Your task to perform on an android device: allow cookies in the chrome app Image 0: 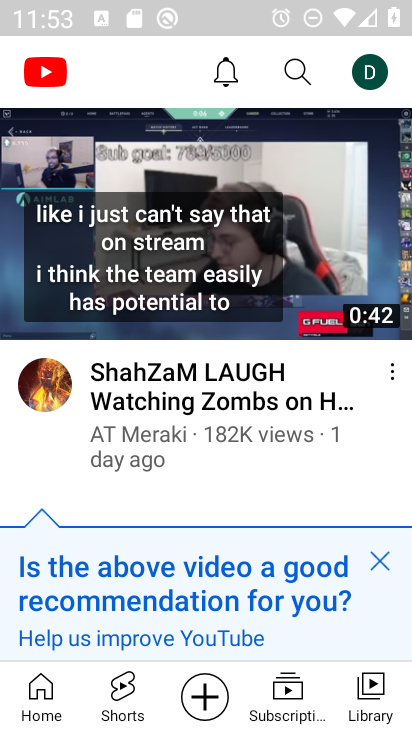
Step 0: press home button
Your task to perform on an android device: allow cookies in the chrome app Image 1: 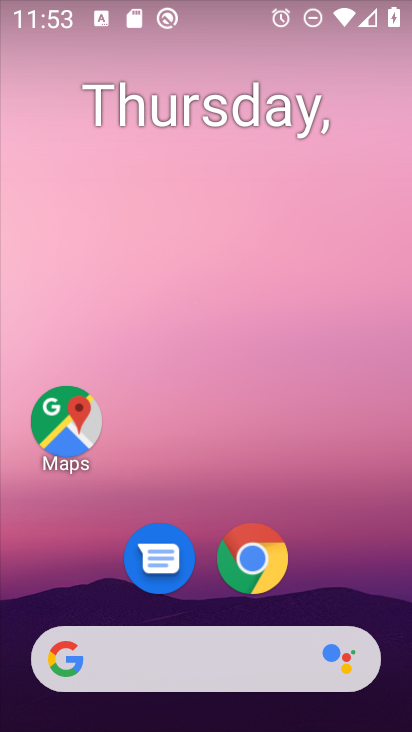
Step 1: click (249, 560)
Your task to perform on an android device: allow cookies in the chrome app Image 2: 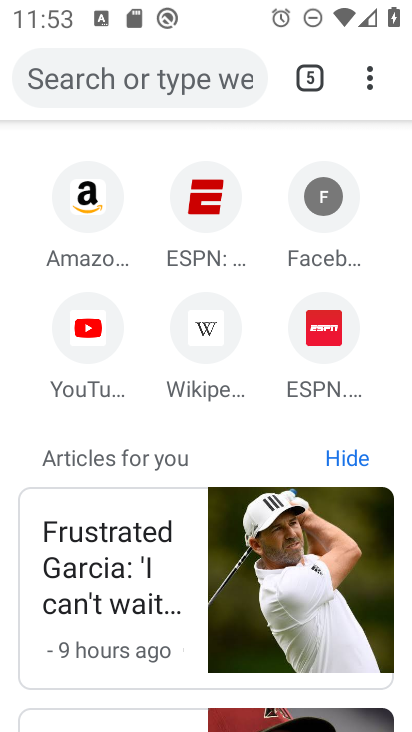
Step 2: click (370, 86)
Your task to perform on an android device: allow cookies in the chrome app Image 3: 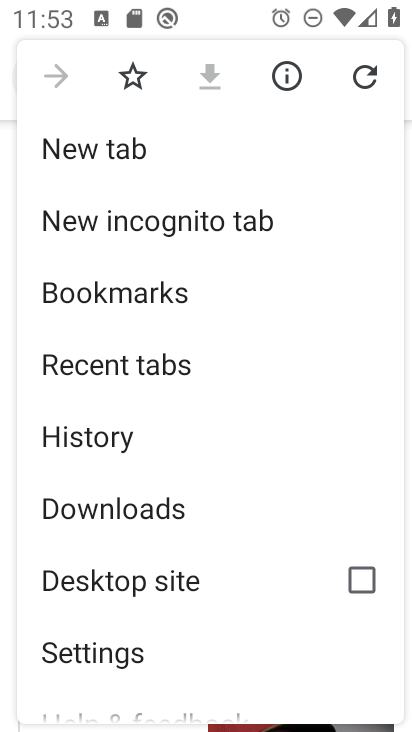
Step 3: click (83, 439)
Your task to perform on an android device: allow cookies in the chrome app Image 4: 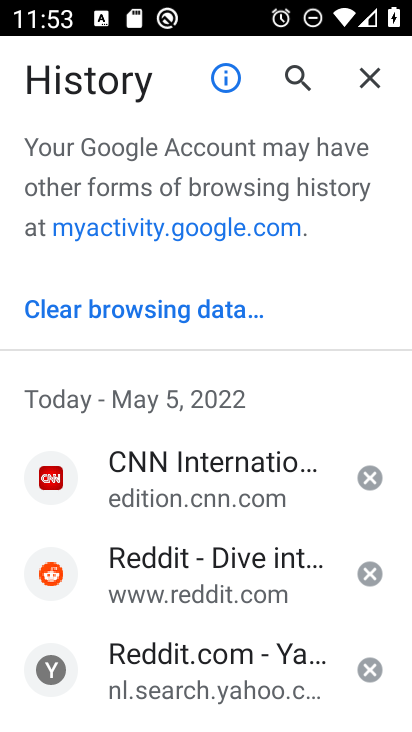
Step 4: click (96, 315)
Your task to perform on an android device: allow cookies in the chrome app Image 5: 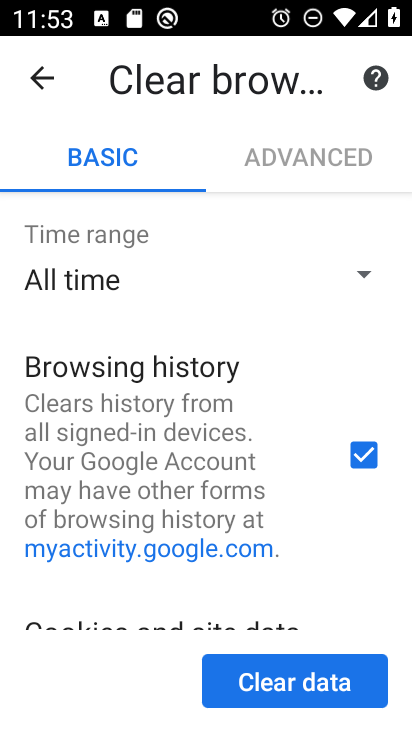
Step 5: click (356, 453)
Your task to perform on an android device: allow cookies in the chrome app Image 6: 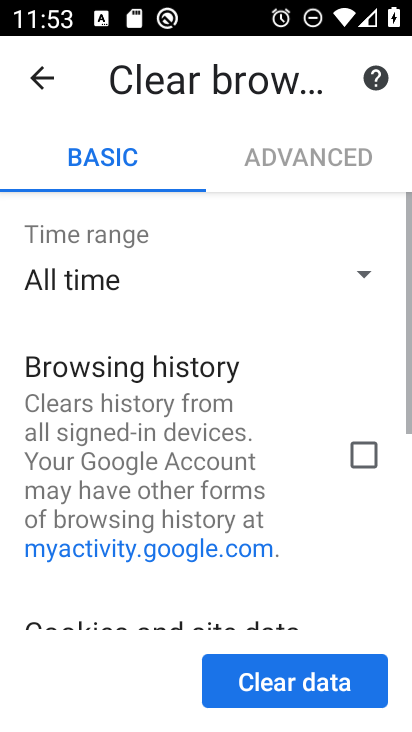
Step 6: drag from (292, 549) to (263, 278)
Your task to perform on an android device: allow cookies in the chrome app Image 7: 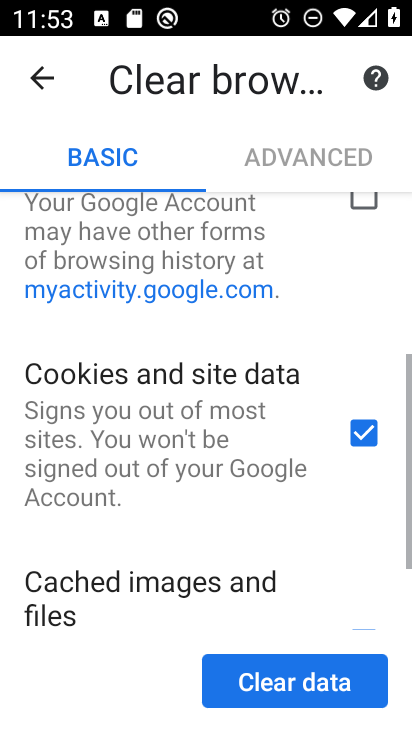
Step 7: drag from (277, 574) to (289, 269)
Your task to perform on an android device: allow cookies in the chrome app Image 8: 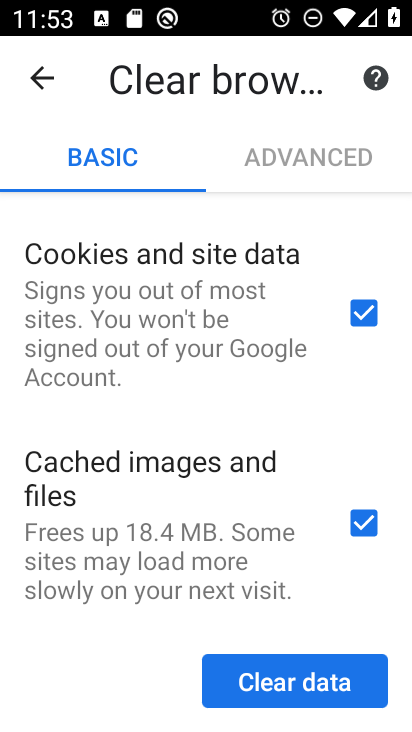
Step 8: click (361, 520)
Your task to perform on an android device: allow cookies in the chrome app Image 9: 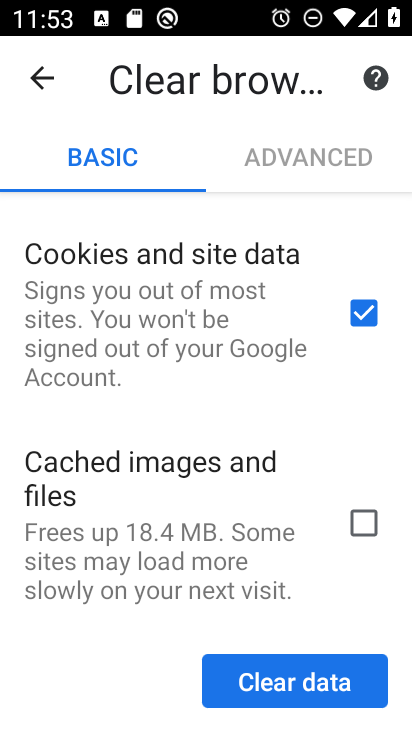
Step 9: click (290, 687)
Your task to perform on an android device: allow cookies in the chrome app Image 10: 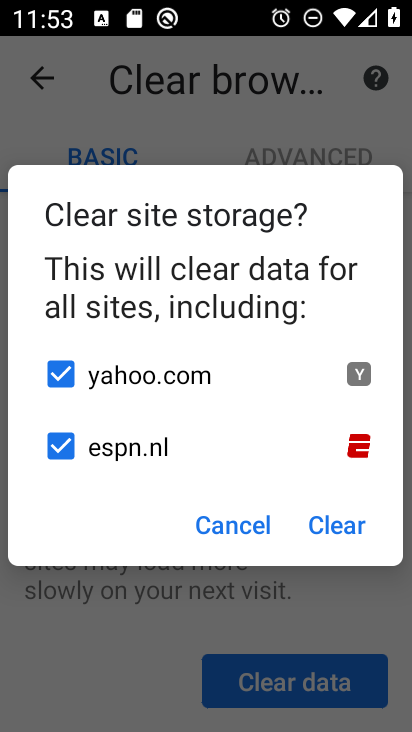
Step 10: click (332, 522)
Your task to perform on an android device: allow cookies in the chrome app Image 11: 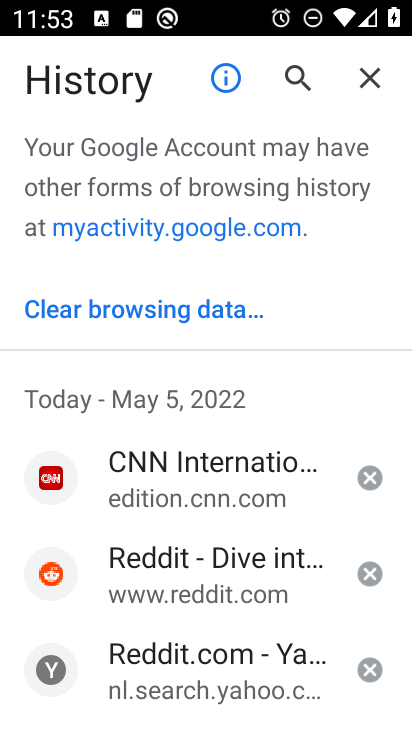
Step 11: task complete